Your task to perform on an android device: See recent photos Image 0: 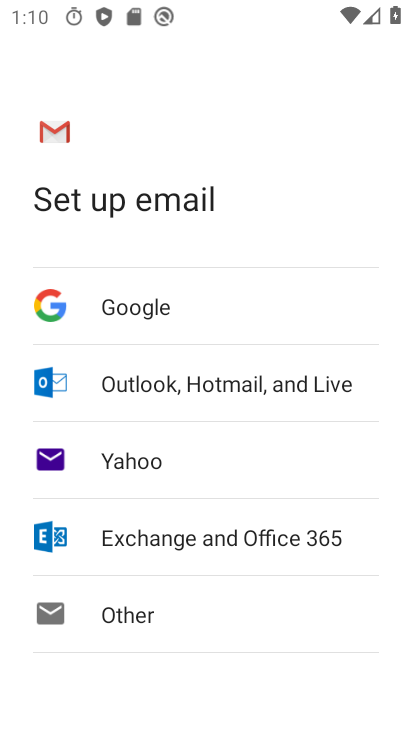
Step 0: press home button
Your task to perform on an android device: See recent photos Image 1: 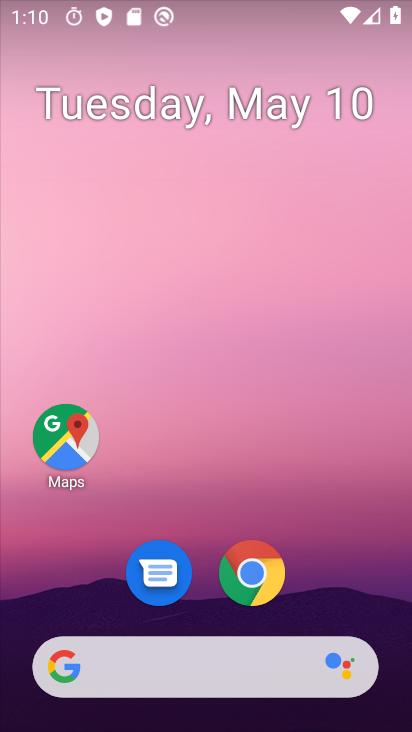
Step 1: drag from (368, 541) to (399, 82)
Your task to perform on an android device: See recent photos Image 2: 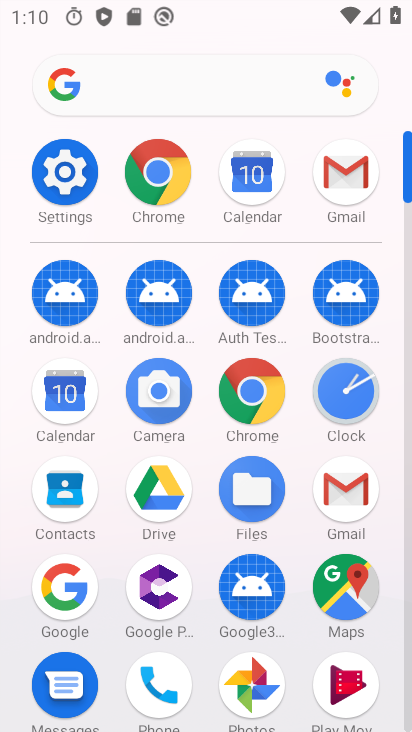
Step 2: click (234, 692)
Your task to perform on an android device: See recent photos Image 3: 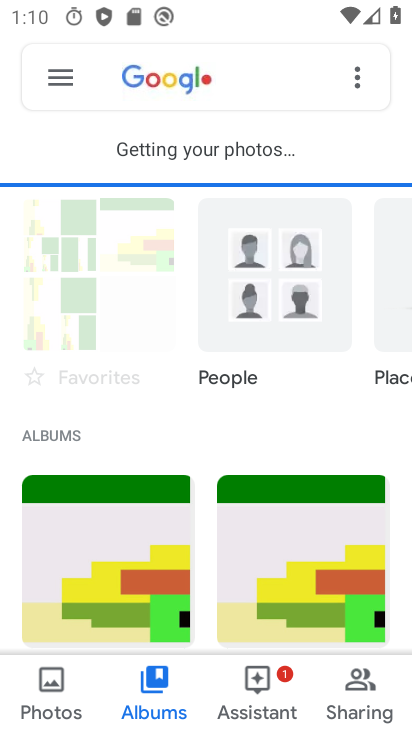
Step 3: click (47, 712)
Your task to perform on an android device: See recent photos Image 4: 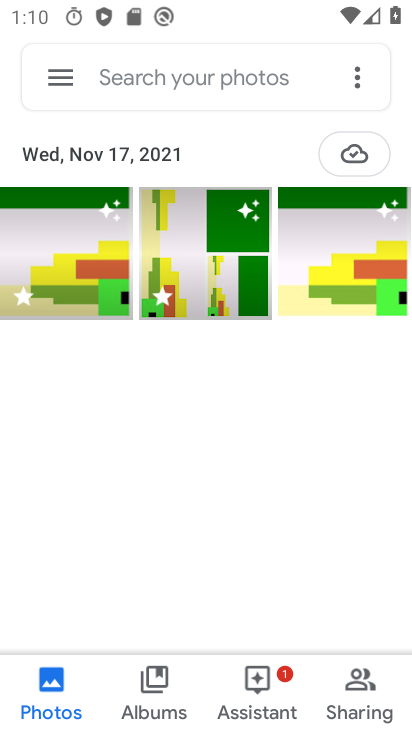
Step 4: click (81, 307)
Your task to perform on an android device: See recent photos Image 5: 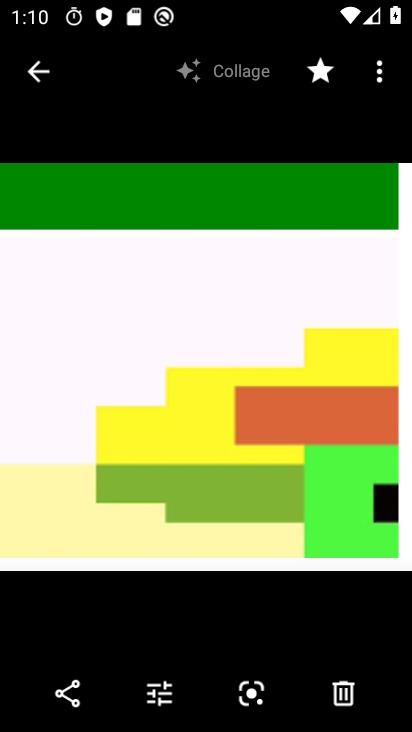
Step 5: task complete